Your task to perform on an android device: open a bookmark in the chrome app Image 0: 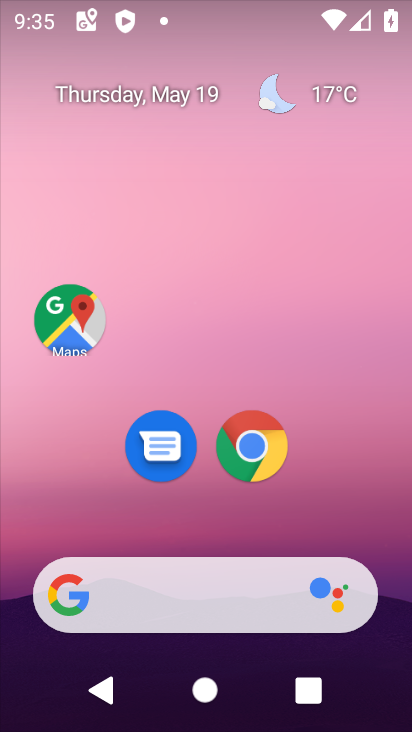
Step 0: click (270, 444)
Your task to perform on an android device: open a bookmark in the chrome app Image 1: 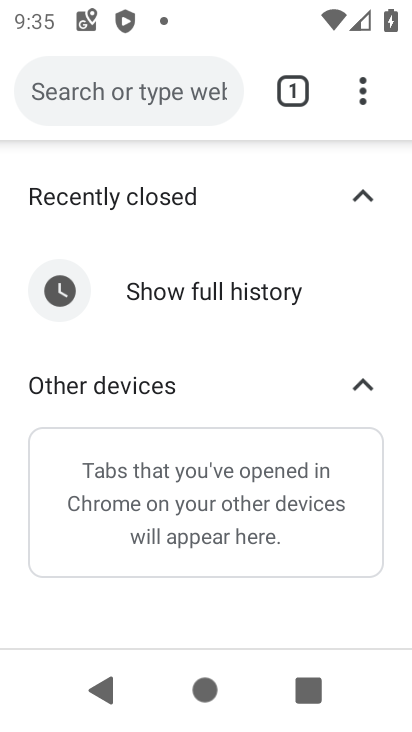
Step 1: click (364, 105)
Your task to perform on an android device: open a bookmark in the chrome app Image 2: 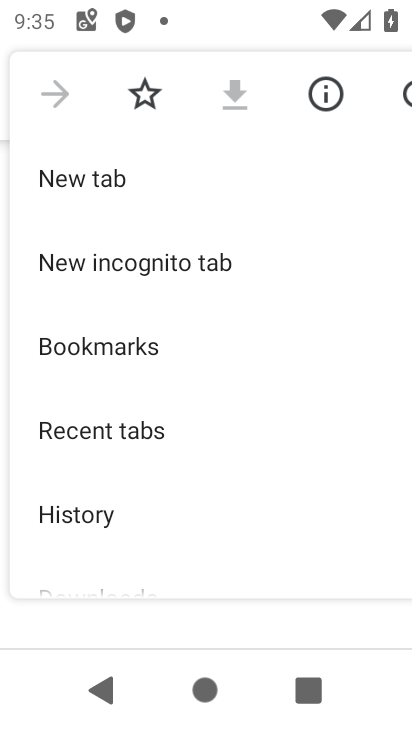
Step 2: click (148, 349)
Your task to perform on an android device: open a bookmark in the chrome app Image 3: 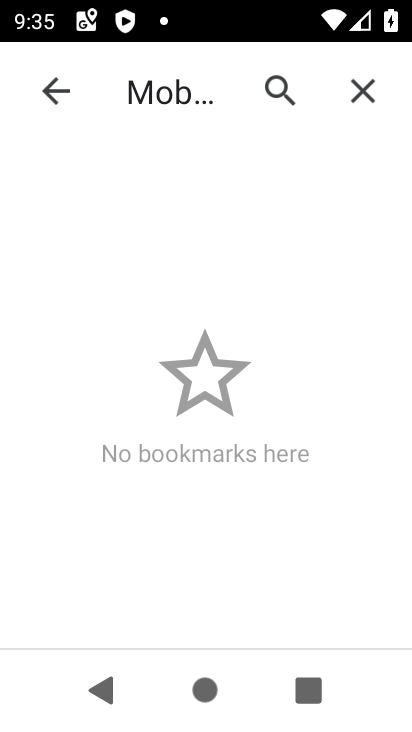
Step 3: task complete